Your task to perform on an android device: Go to calendar. Show me events next week Image 0: 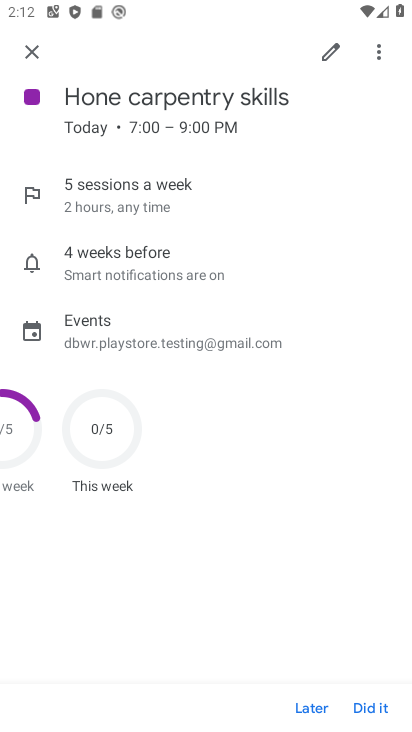
Step 0: click (30, 46)
Your task to perform on an android device: Go to calendar. Show me events next week Image 1: 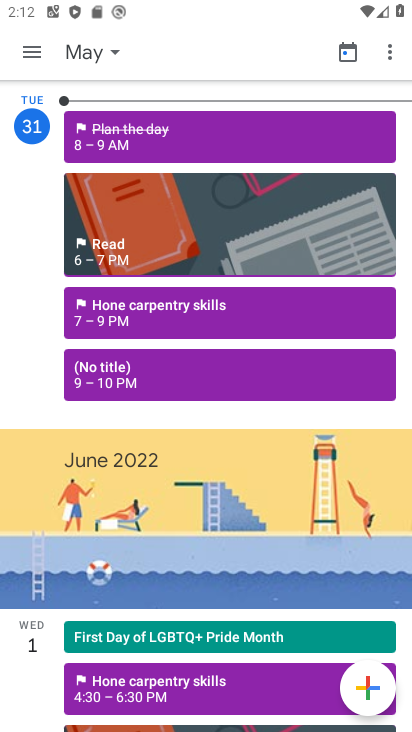
Step 1: click (104, 55)
Your task to perform on an android device: Go to calendar. Show me events next week Image 2: 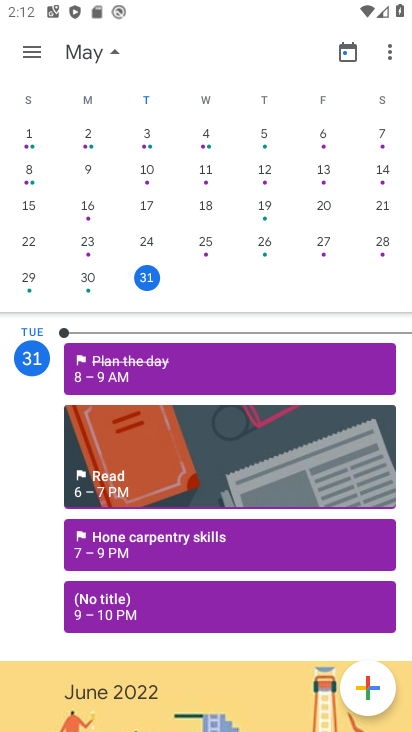
Step 2: drag from (374, 199) to (4, 179)
Your task to perform on an android device: Go to calendar. Show me events next week Image 3: 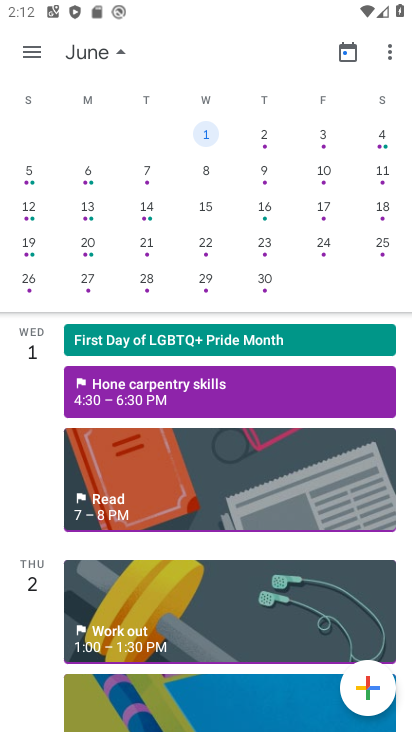
Step 3: click (83, 174)
Your task to perform on an android device: Go to calendar. Show me events next week Image 4: 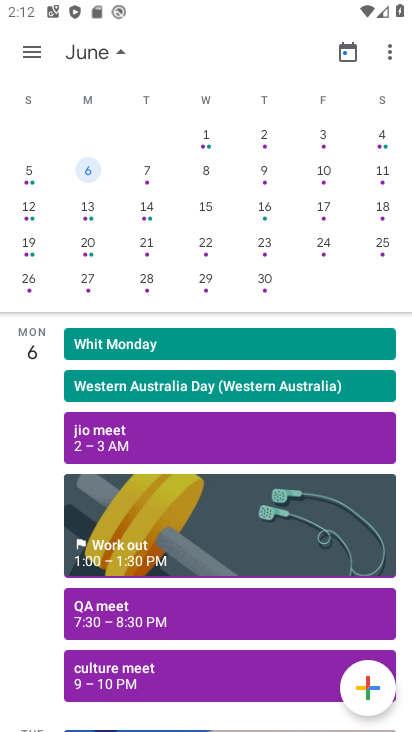
Step 4: click (132, 429)
Your task to perform on an android device: Go to calendar. Show me events next week Image 5: 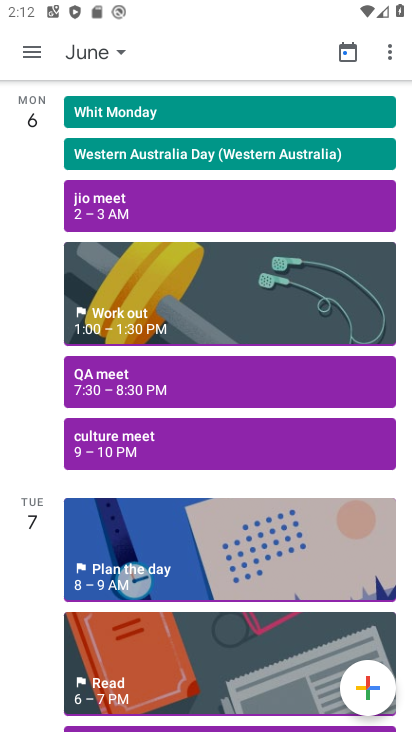
Step 5: click (104, 113)
Your task to perform on an android device: Go to calendar. Show me events next week Image 6: 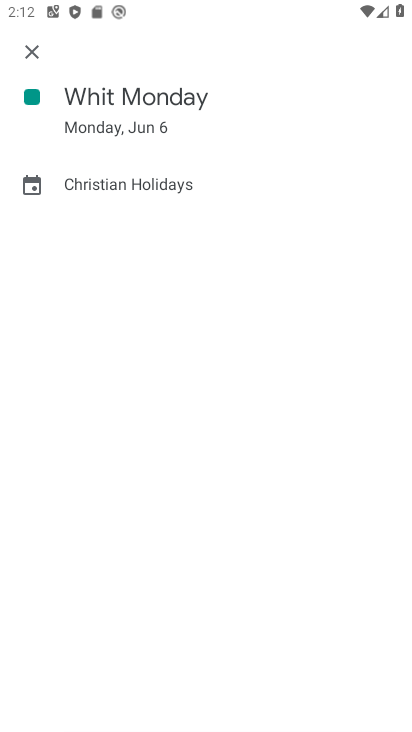
Step 6: task complete